Your task to perform on an android device: toggle show notifications on the lock screen Image 0: 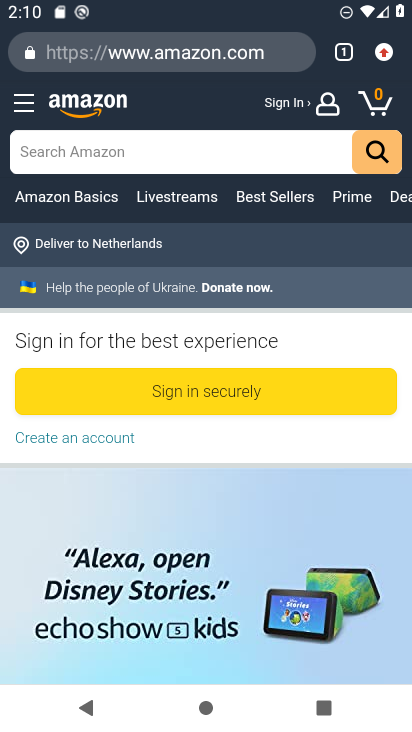
Step 0: press home button
Your task to perform on an android device: toggle show notifications on the lock screen Image 1: 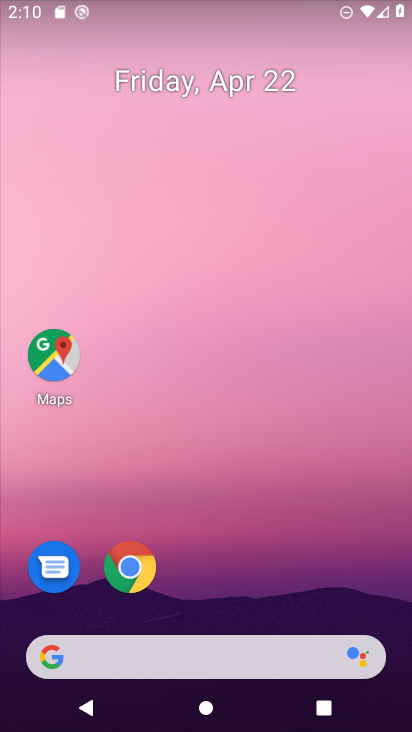
Step 1: drag from (250, 550) to (330, 159)
Your task to perform on an android device: toggle show notifications on the lock screen Image 2: 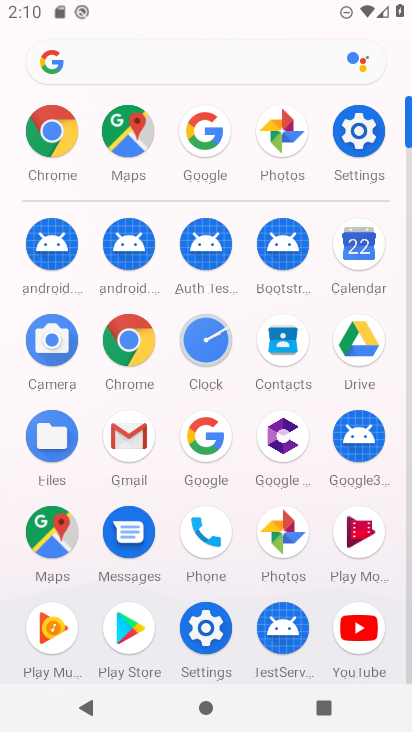
Step 2: click (377, 137)
Your task to perform on an android device: toggle show notifications on the lock screen Image 3: 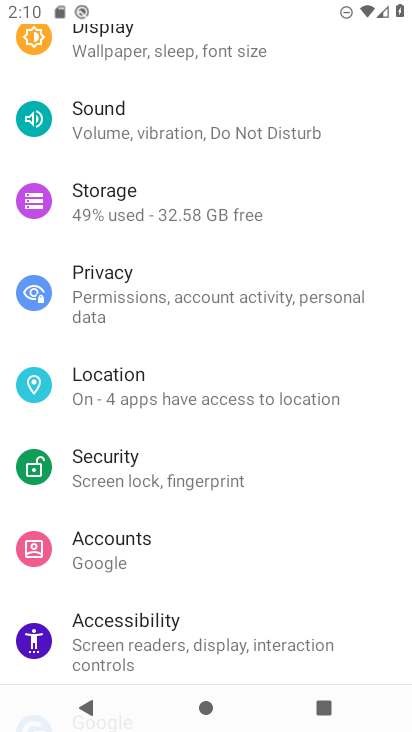
Step 3: drag from (312, 157) to (250, 595)
Your task to perform on an android device: toggle show notifications on the lock screen Image 4: 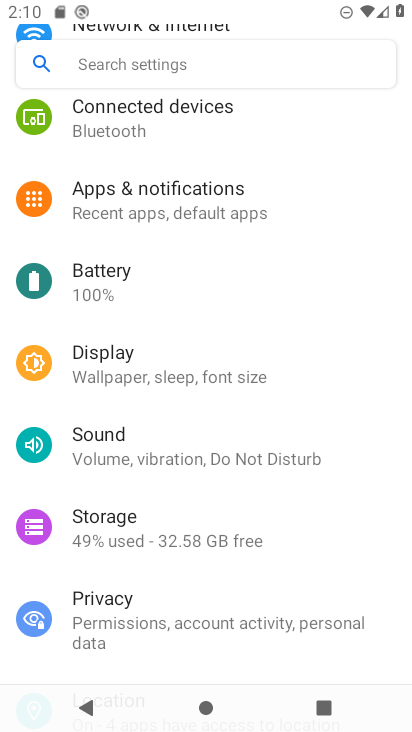
Step 4: click (233, 194)
Your task to perform on an android device: toggle show notifications on the lock screen Image 5: 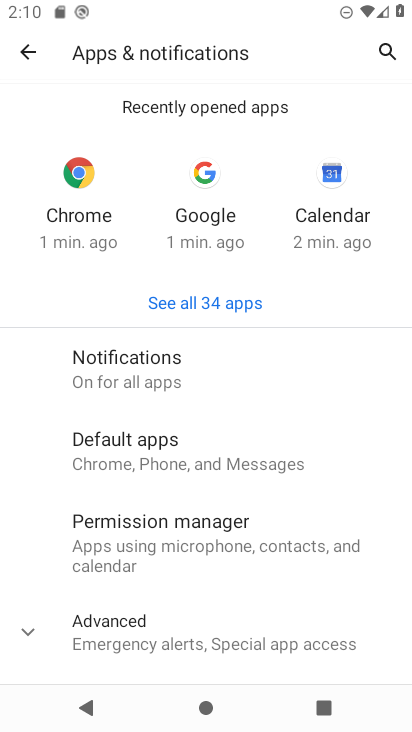
Step 5: click (194, 369)
Your task to perform on an android device: toggle show notifications on the lock screen Image 6: 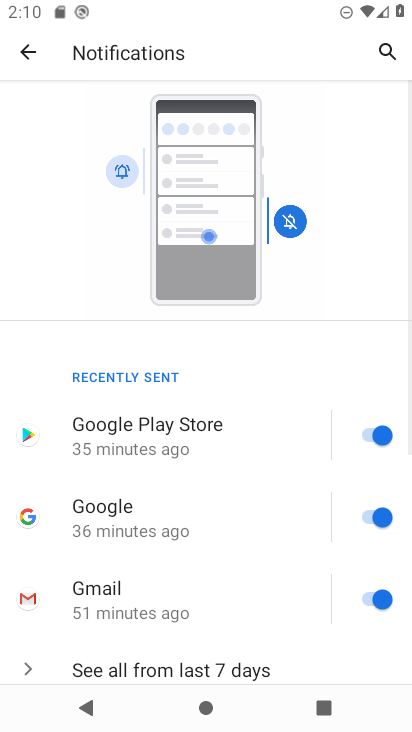
Step 6: drag from (179, 653) to (313, 94)
Your task to perform on an android device: toggle show notifications on the lock screen Image 7: 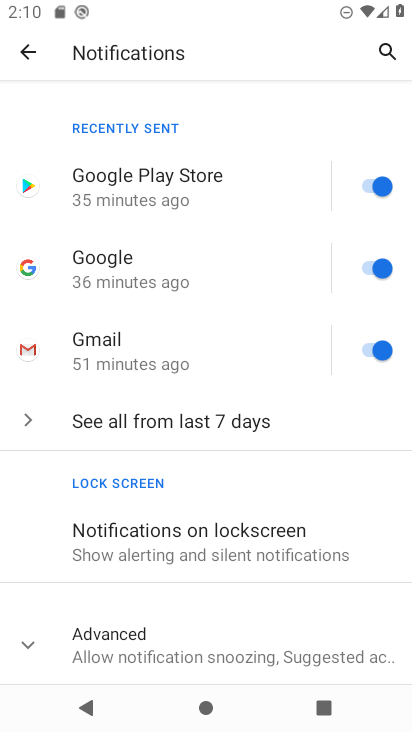
Step 7: click (201, 536)
Your task to perform on an android device: toggle show notifications on the lock screen Image 8: 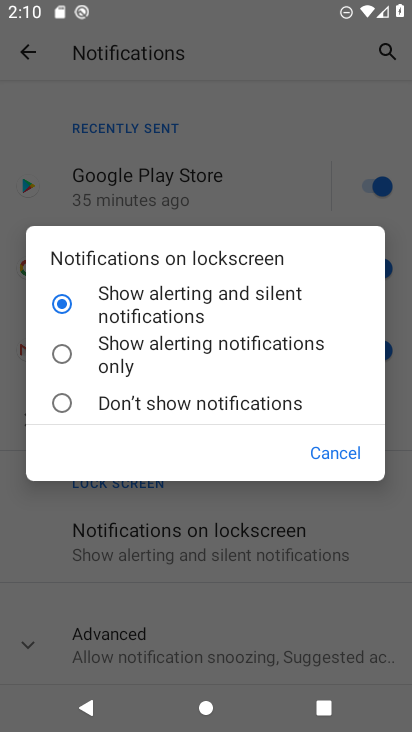
Step 8: task complete